Your task to perform on an android device: Show me popular games on the Play Store Image 0: 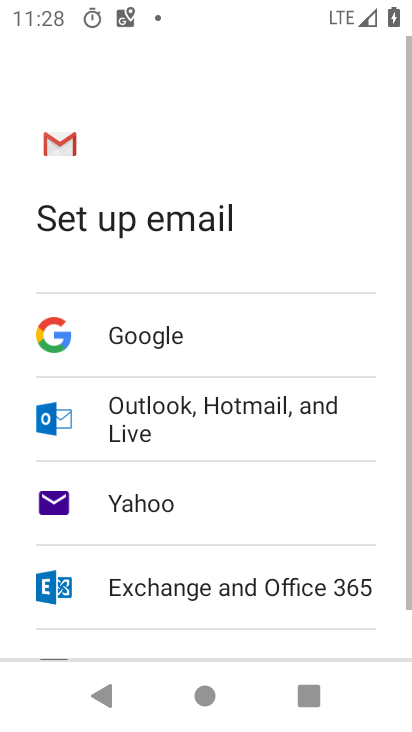
Step 0: press home button
Your task to perform on an android device: Show me popular games on the Play Store Image 1: 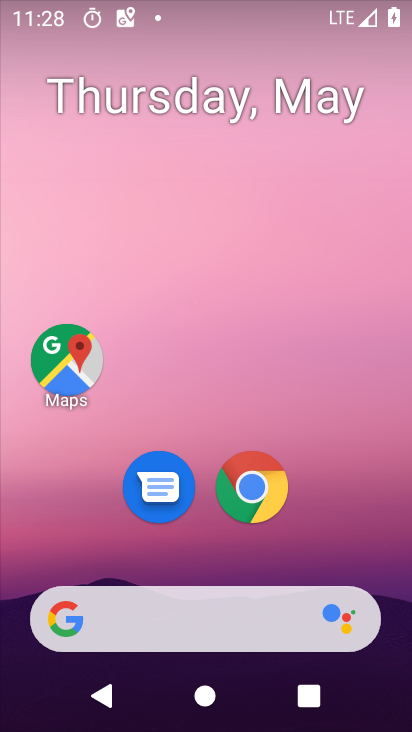
Step 1: drag from (250, 610) to (324, 114)
Your task to perform on an android device: Show me popular games on the Play Store Image 2: 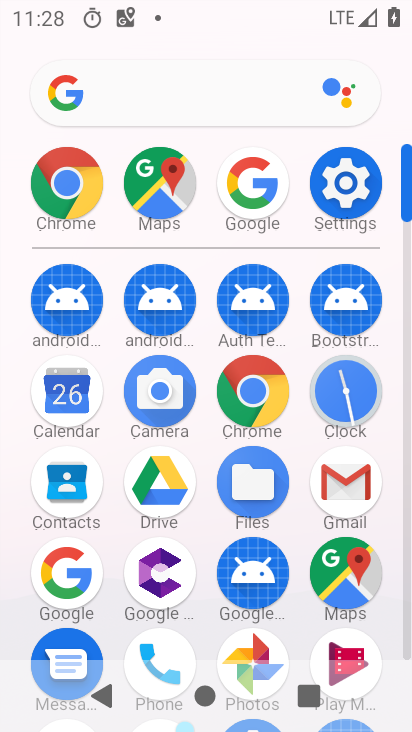
Step 2: drag from (216, 465) to (280, 152)
Your task to perform on an android device: Show me popular games on the Play Store Image 3: 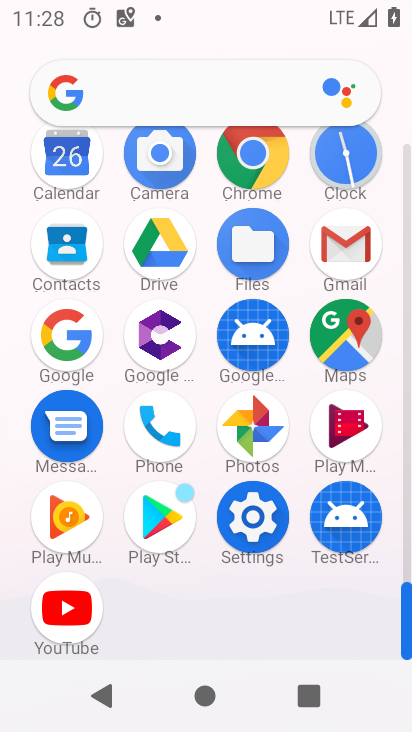
Step 3: click (163, 522)
Your task to perform on an android device: Show me popular games on the Play Store Image 4: 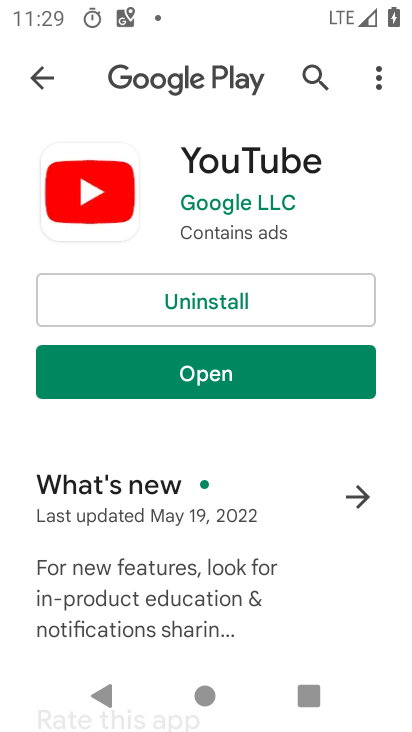
Step 4: click (44, 85)
Your task to perform on an android device: Show me popular games on the Play Store Image 5: 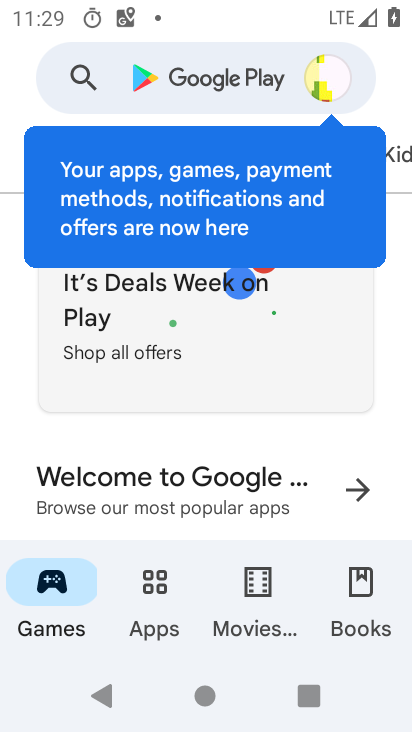
Step 5: click (58, 593)
Your task to perform on an android device: Show me popular games on the Play Store Image 6: 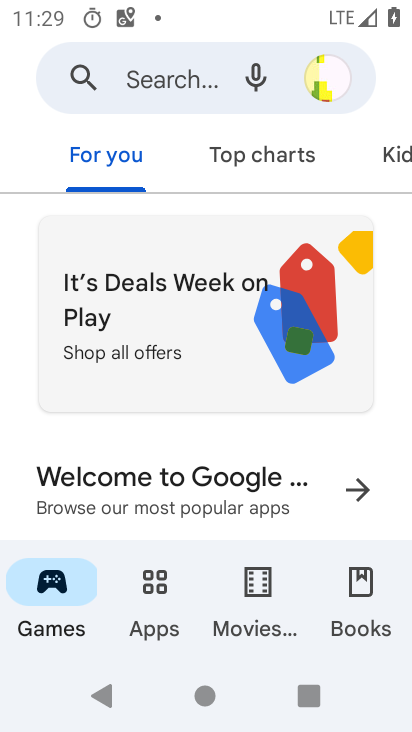
Step 6: task complete